Your task to perform on an android device: toggle data saver in the chrome app Image 0: 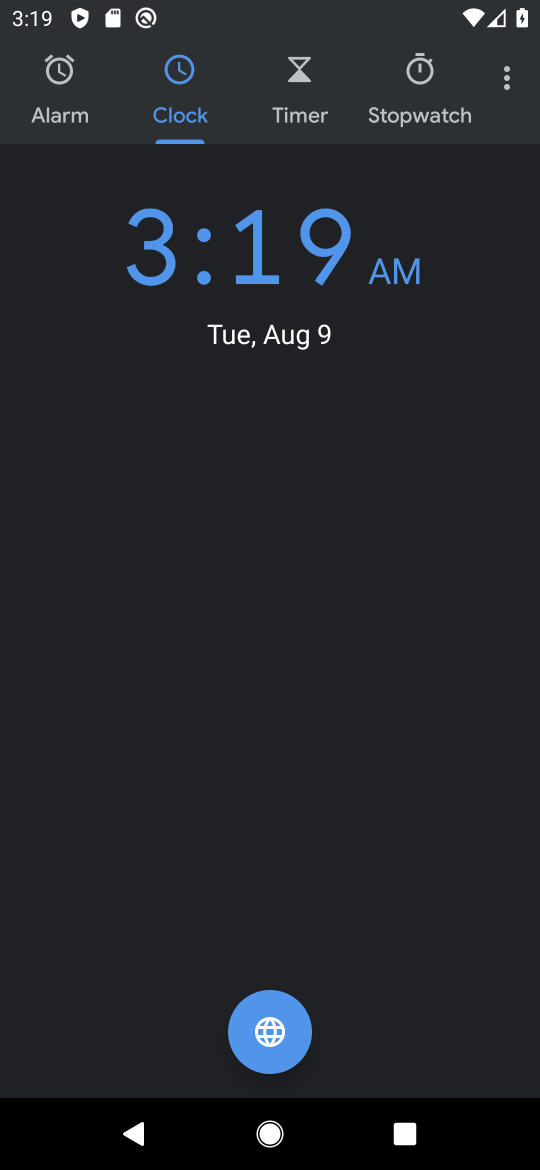
Step 0: press home button
Your task to perform on an android device: toggle data saver in the chrome app Image 1: 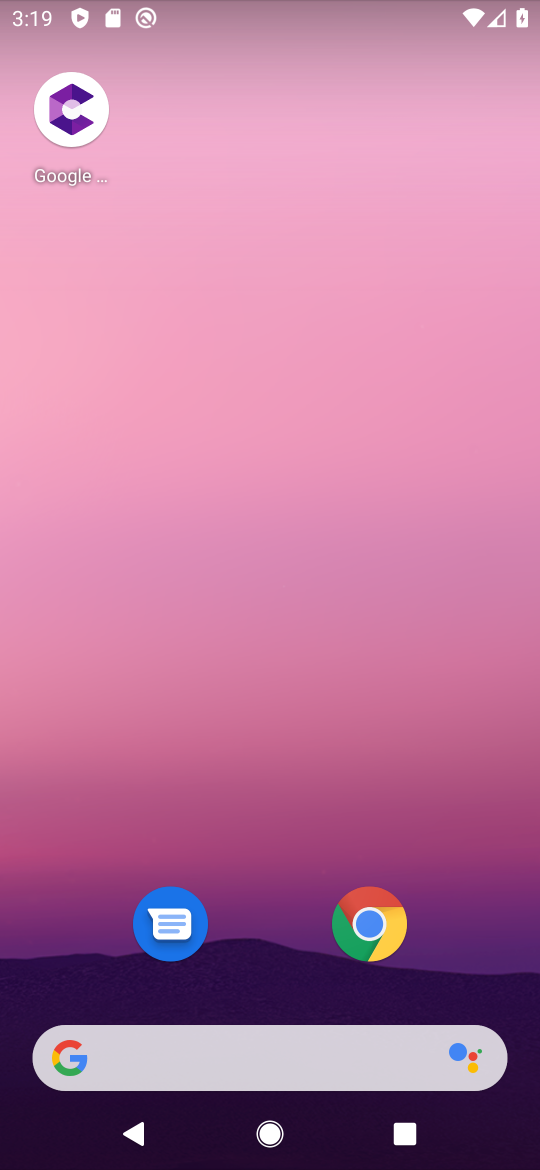
Step 1: click (365, 922)
Your task to perform on an android device: toggle data saver in the chrome app Image 2: 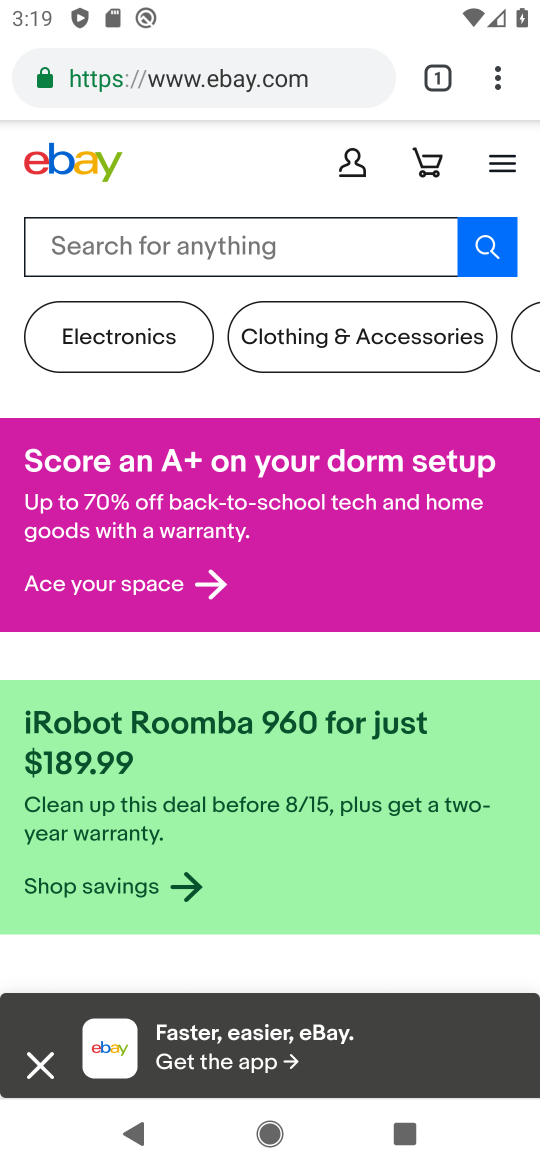
Step 2: click (508, 85)
Your task to perform on an android device: toggle data saver in the chrome app Image 3: 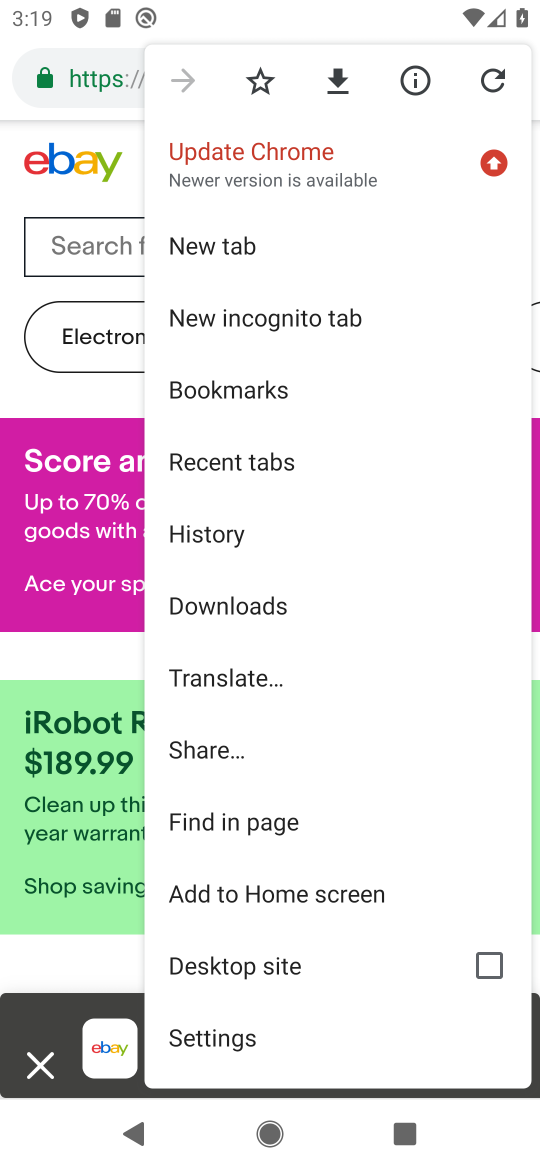
Step 3: click (238, 1034)
Your task to perform on an android device: toggle data saver in the chrome app Image 4: 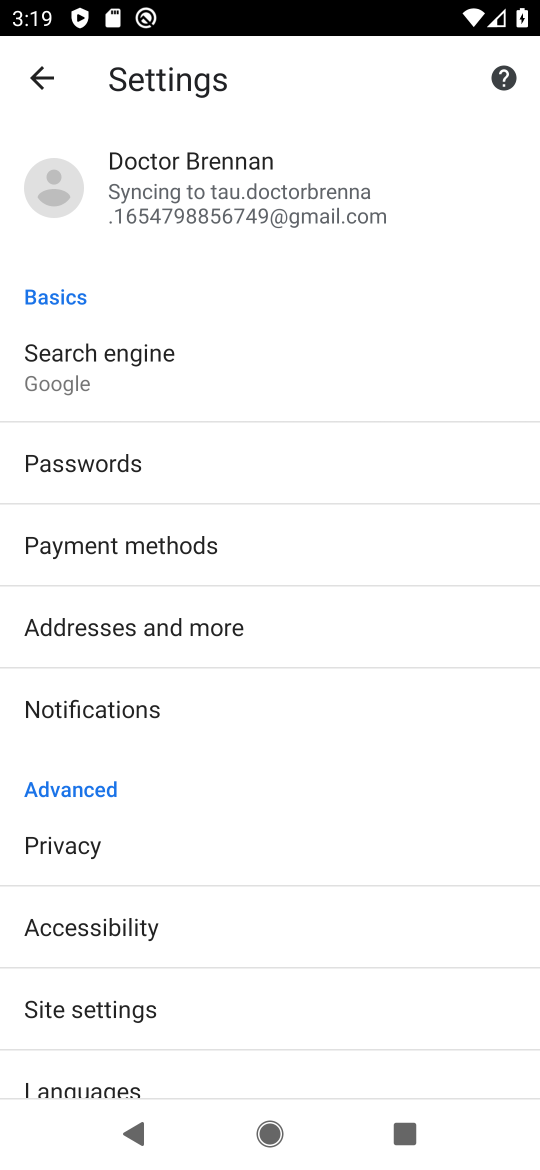
Step 4: drag from (216, 994) to (354, 582)
Your task to perform on an android device: toggle data saver in the chrome app Image 5: 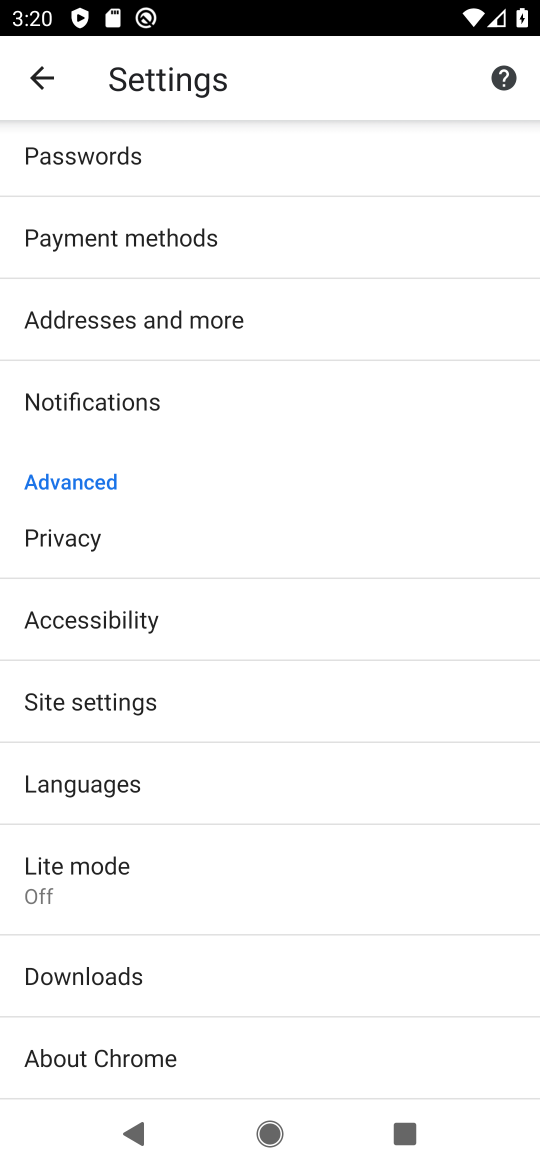
Step 5: click (114, 865)
Your task to perform on an android device: toggle data saver in the chrome app Image 6: 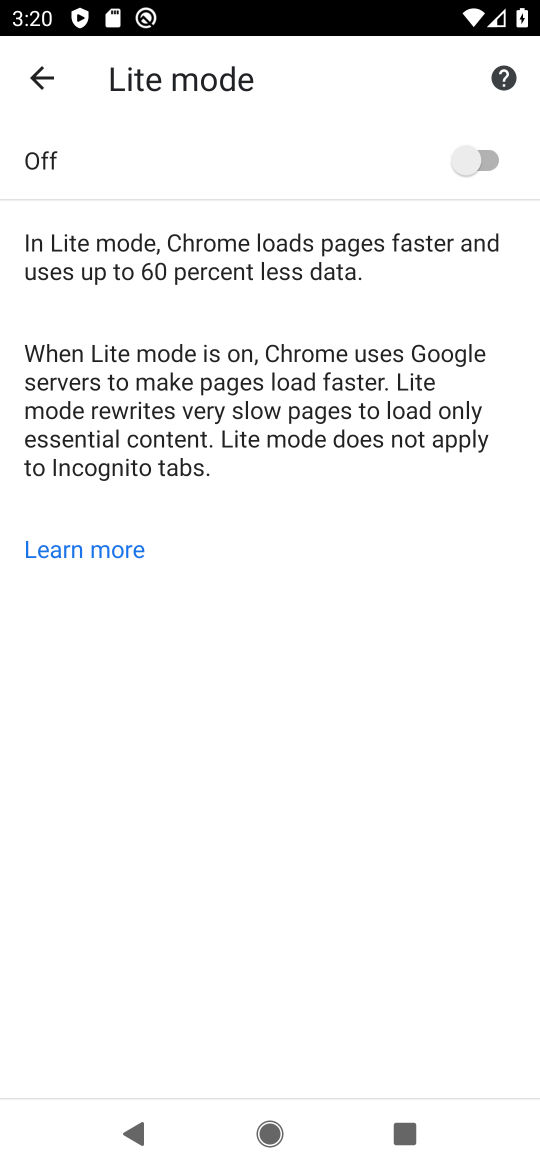
Step 6: click (470, 161)
Your task to perform on an android device: toggle data saver in the chrome app Image 7: 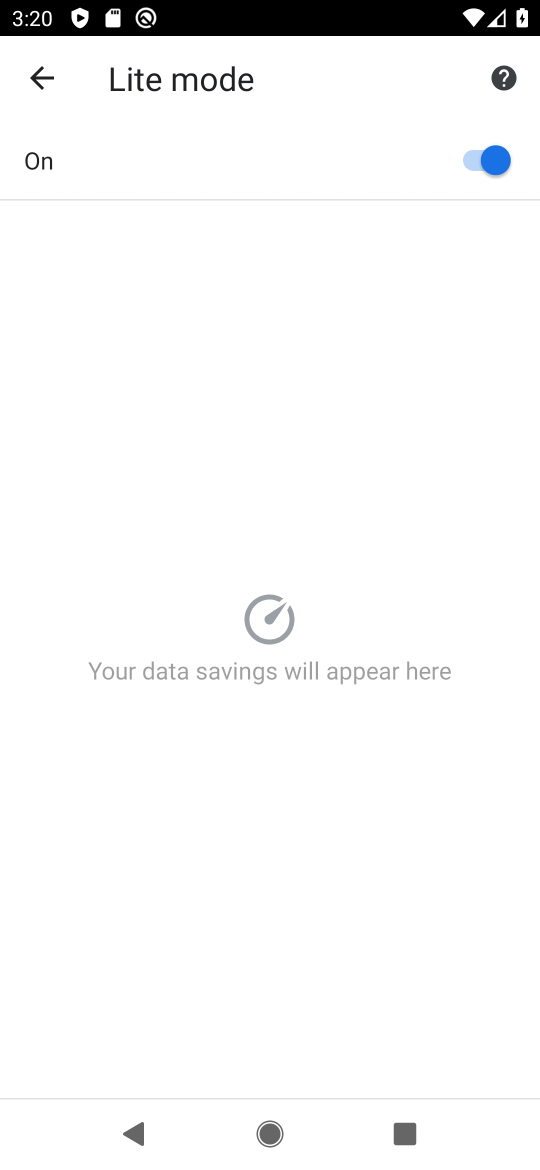
Step 7: task complete